Your task to perform on an android device: refresh tabs in the chrome app Image 0: 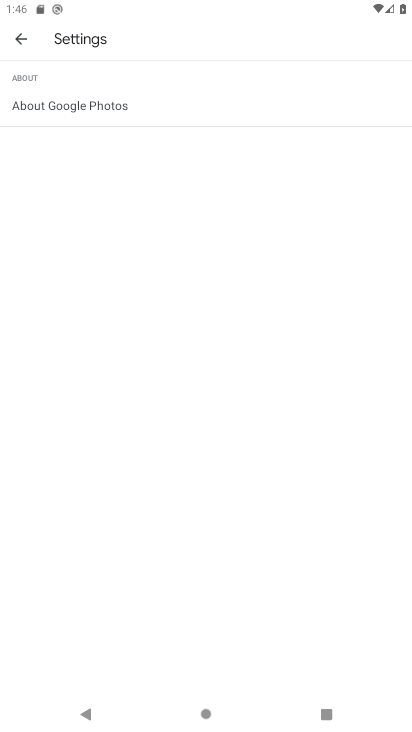
Step 0: press home button
Your task to perform on an android device: refresh tabs in the chrome app Image 1: 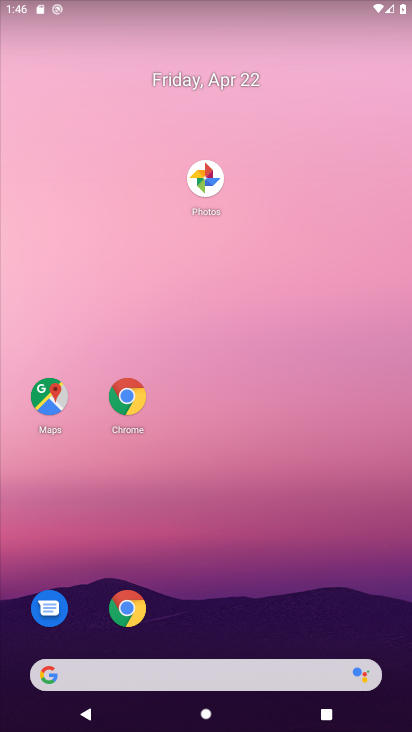
Step 1: drag from (329, 682) to (172, 91)
Your task to perform on an android device: refresh tabs in the chrome app Image 2: 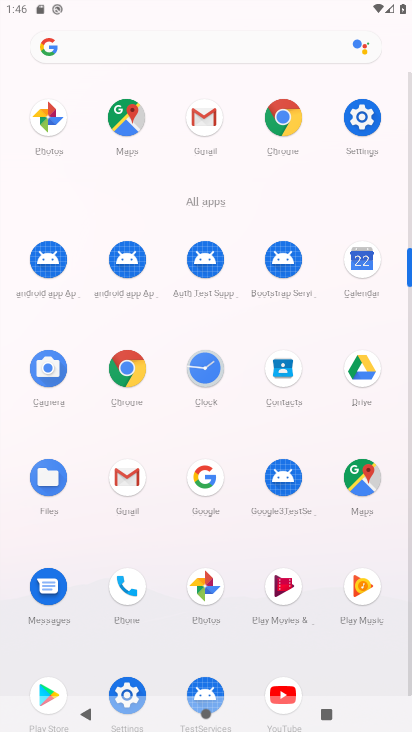
Step 2: click (283, 114)
Your task to perform on an android device: refresh tabs in the chrome app Image 3: 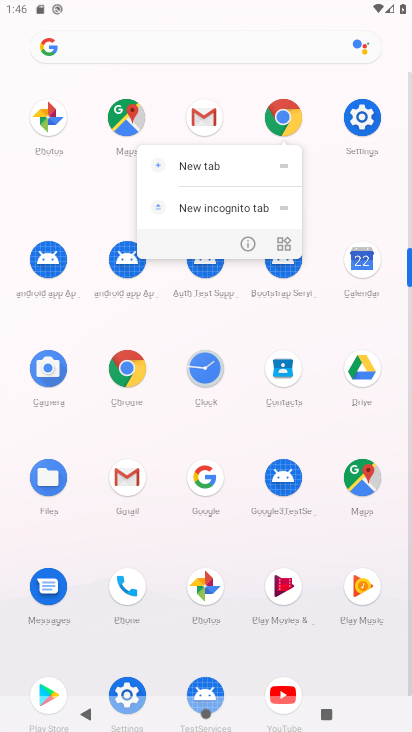
Step 3: click (284, 113)
Your task to perform on an android device: refresh tabs in the chrome app Image 4: 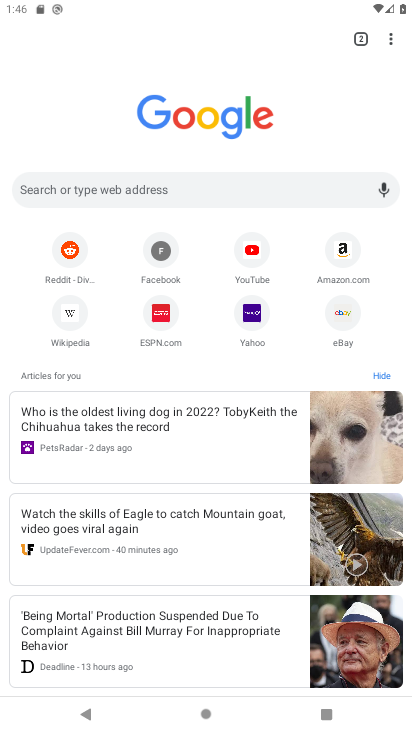
Step 4: task complete